Your task to perform on an android device: Open the Play Movies app and select the watchlist tab. Image 0: 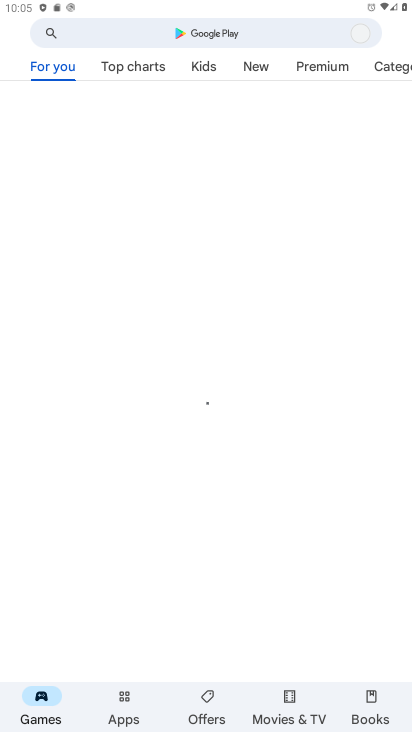
Step 0: press home button
Your task to perform on an android device: Open the Play Movies app and select the watchlist tab. Image 1: 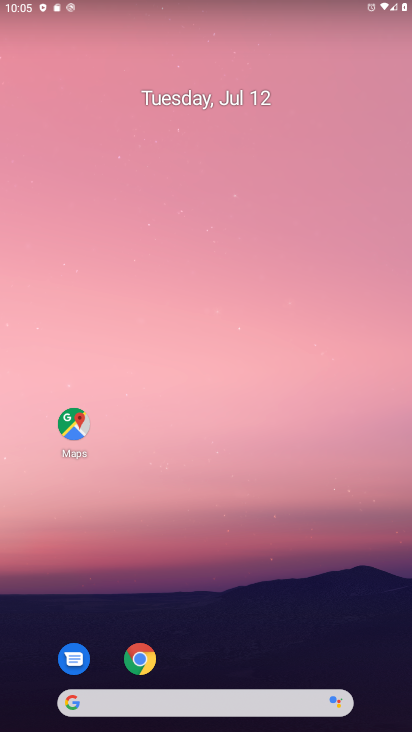
Step 1: drag from (188, 694) to (173, 216)
Your task to perform on an android device: Open the Play Movies app and select the watchlist tab. Image 2: 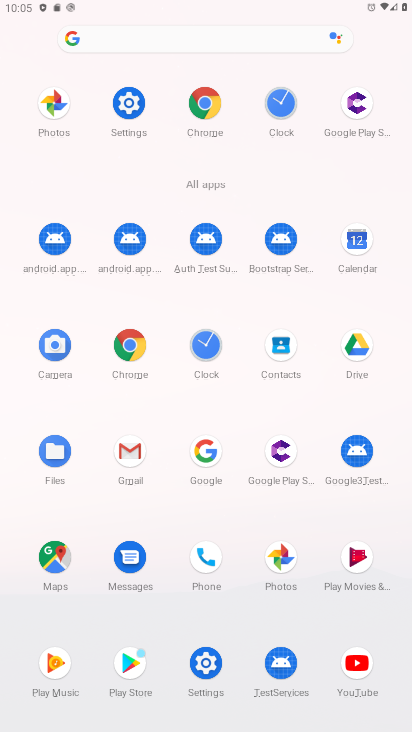
Step 2: click (362, 556)
Your task to perform on an android device: Open the Play Movies app and select the watchlist tab. Image 3: 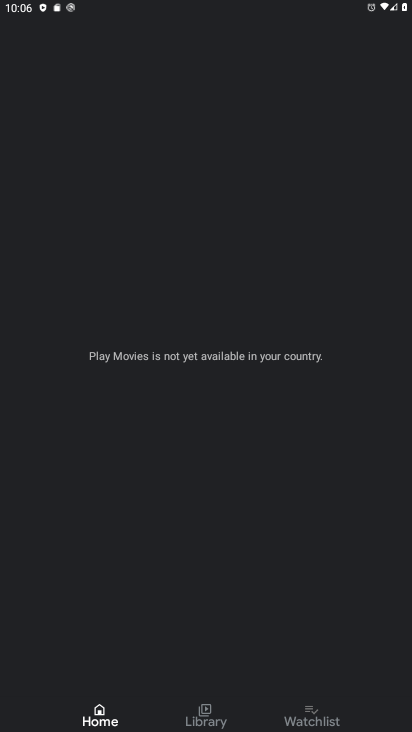
Step 3: click (306, 716)
Your task to perform on an android device: Open the Play Movies app and select the watchlist tab. Image 4: 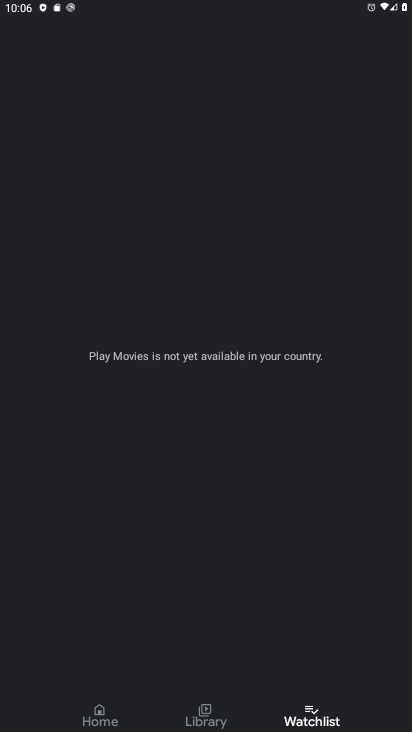
Step 4: task complete